Your task to perform on an android device: add a label to a message in the gmail app Image 0: 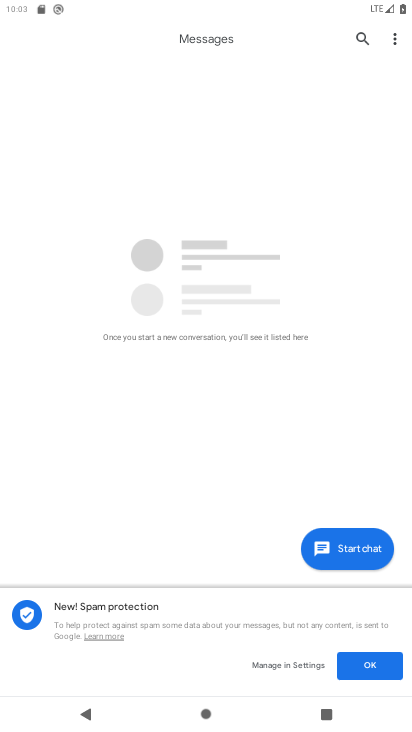
Step 0: press home button
Your task to perform on an android device: add a label to a message in the gmail app Image 1: 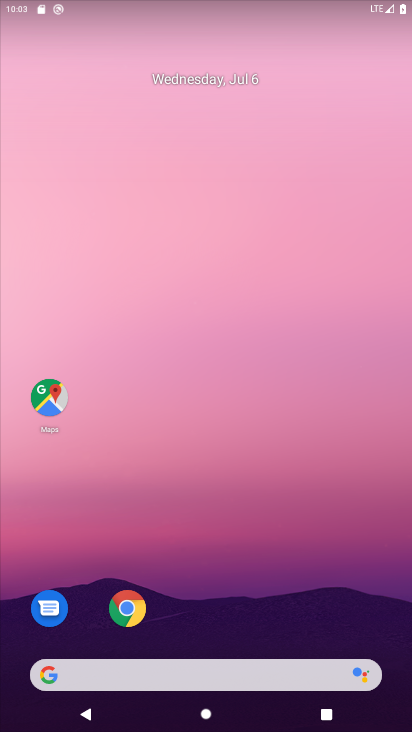
Step 1: drag from (233, 614) to (276, 0)
Your task to perform on an android device: add a label to a message in the gmail app Image 2: 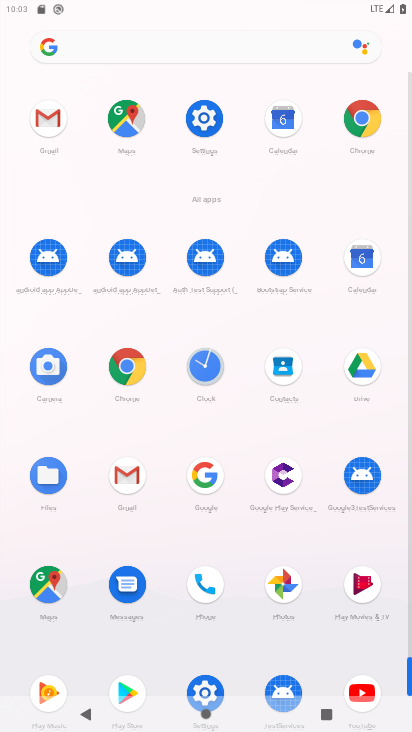
Step 2: click (131, 487)
Your task to perform on an android device: add a label to a message in the gmail app Image 3: 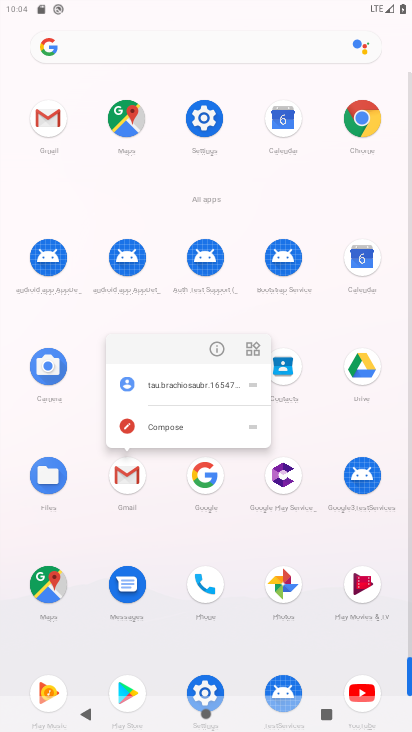
Step 3: click (134, 475)
Your task to perform on an android device: add a label to a message in the gmail app Image 4: 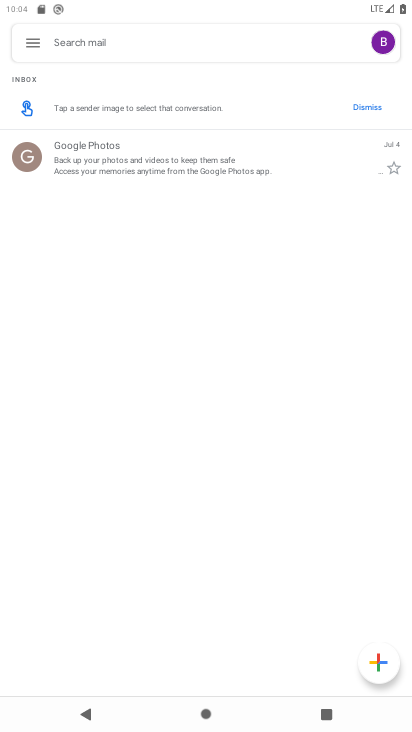
Step 4: click (24, 157)
Your task to perform on an android device: add a label to a message in the gmail app Image 5: 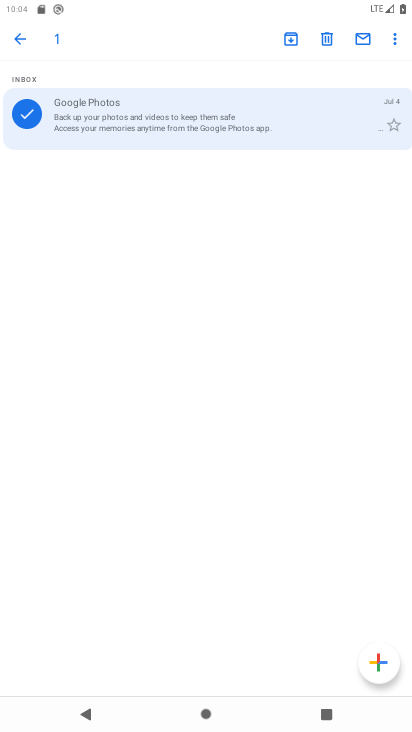
Step 5: click (395, 39)
Your task to perform on an android device: add a label to a message in the gmail app Image 6: 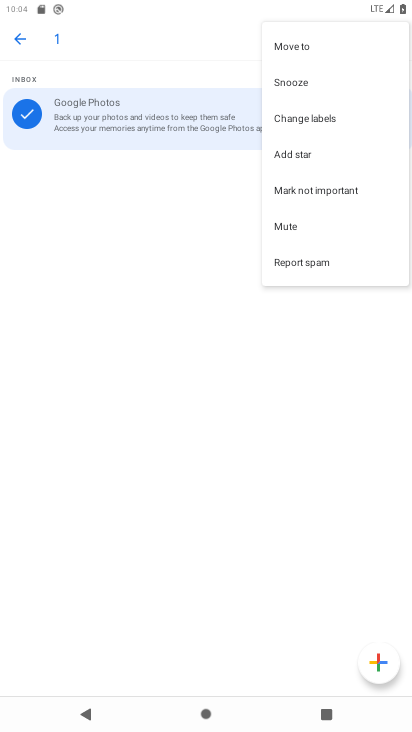
Step 6: click (307, 119)
Your task to perform on an android device: add a label to a message in the gmail app Image 7: 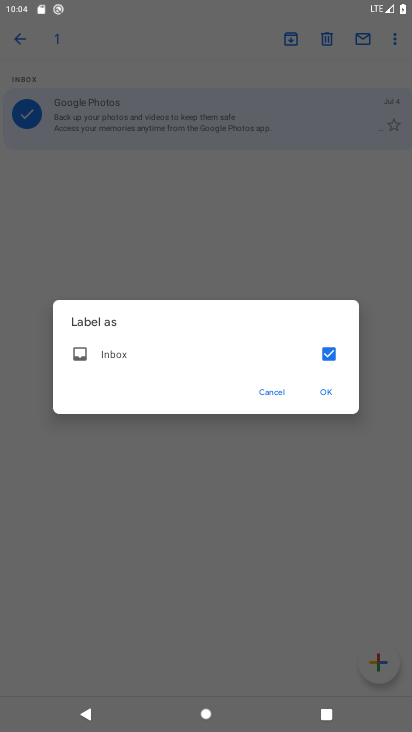
Step 7: click (335, 393)
Your task to perform on an android device: add a label to a message in the gmail app Image 8: 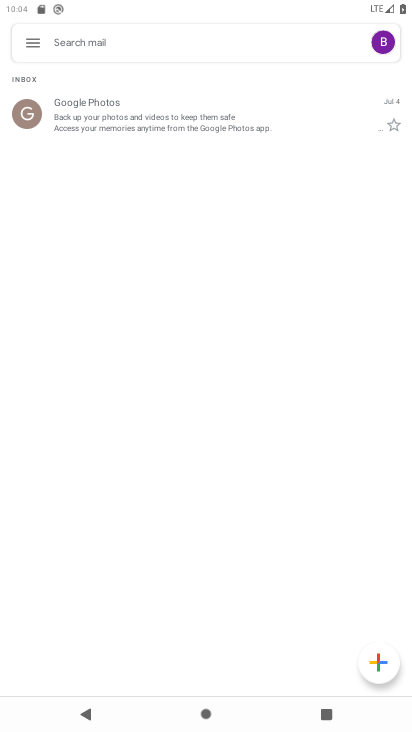
Step 8: task complete